Your task to perform on an android device: Open privacy settings Image 0: 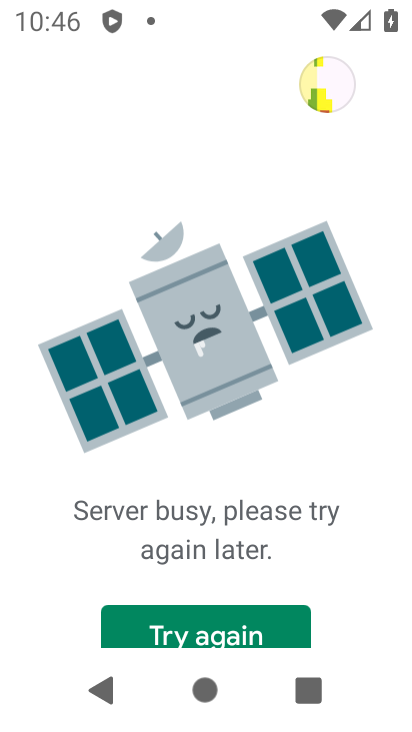
Step 0: press home button
Your task to perform on an android device: Open privacy settings Image 1: 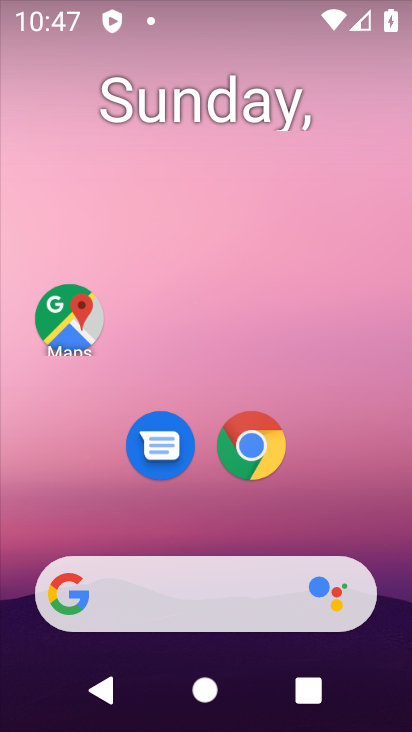
Step 1: click (243, 451)
Your task to perform on an android device: Open privacy settings Image 2: 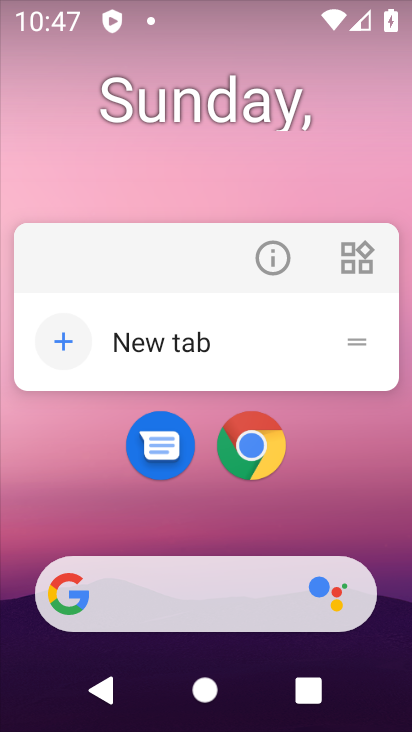
Step 2: click (256, 451)
Your task to perform on an android device: Open privacy settings Image 3: 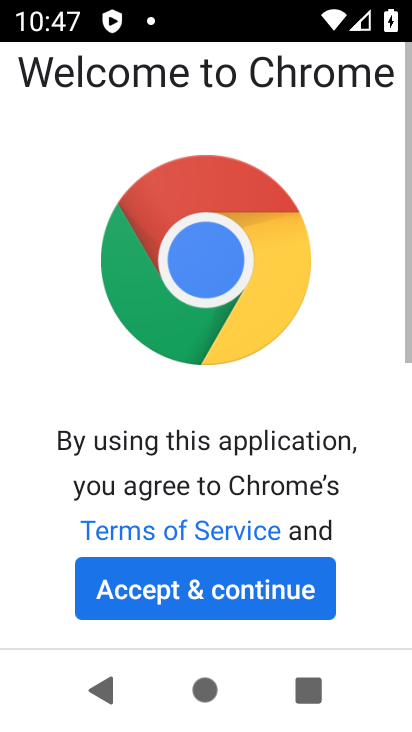
Step 3: click (229, 585)
Your task to perform on an android device: Open privacy settings Image 4: 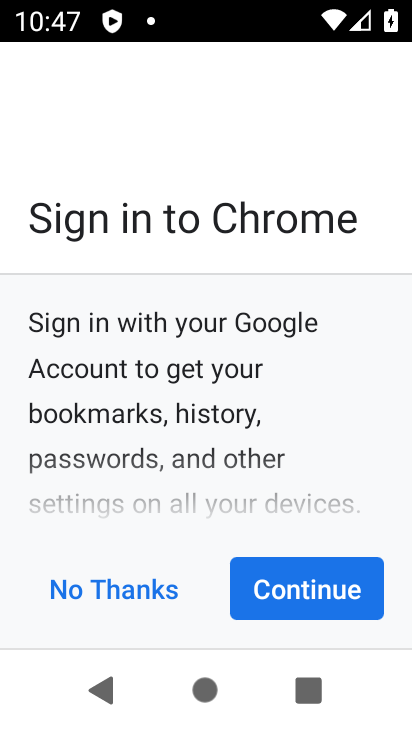
Step 4: click (366, 597)
Your task to perform on an android device: Open privacy settings Image 5: 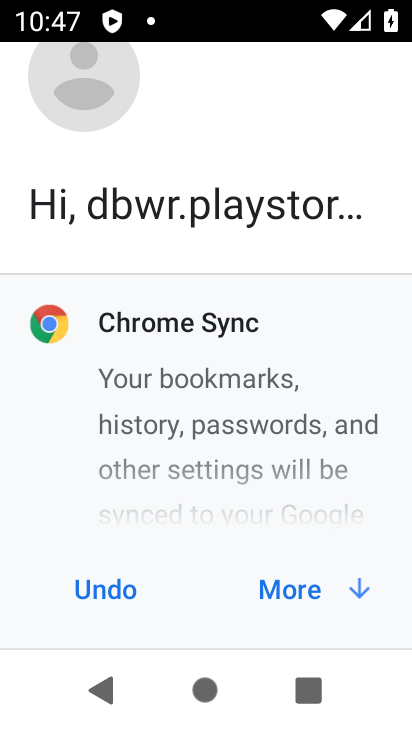
Step 5: click (340, 603)
Your task to perform on an android device: Open privacy settings Image 6: 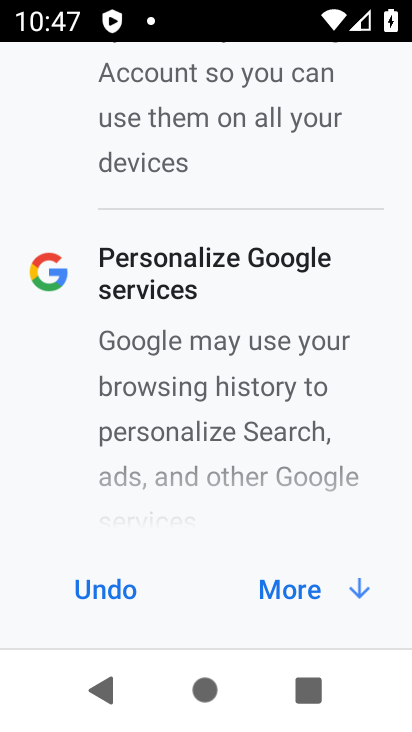
Step 6: click (340, 591)
Your task to perform on an android device: Open privacy settings Image 7: 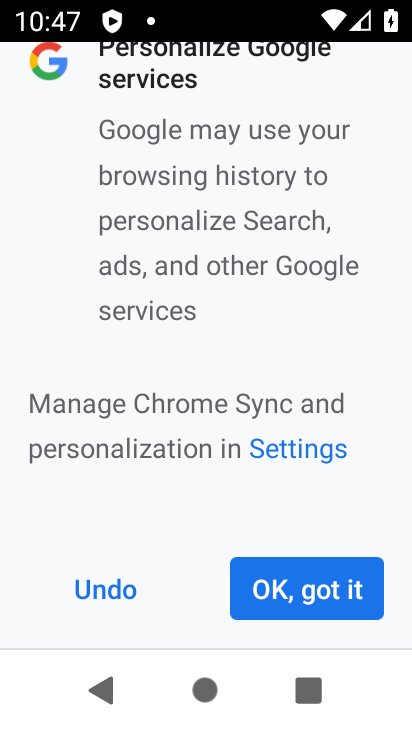
Step 7: click (340, 591)
Your task to perform on an android device: Open privacy settings Image 8: 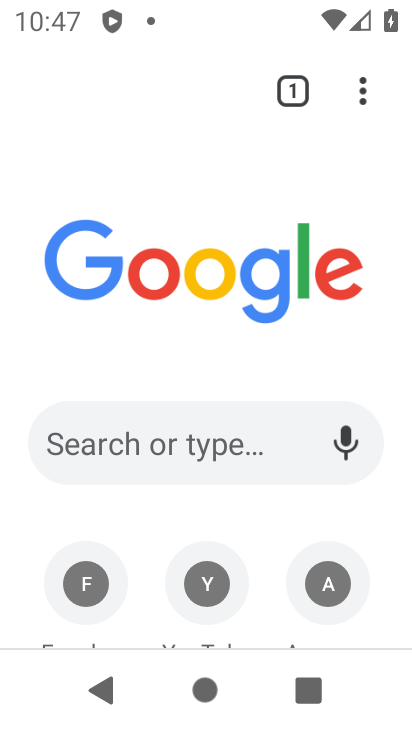
Step 8: drag from (366, 63) to (230, 484)
Your task to perform on an android device: Open privacy settings Image 9: 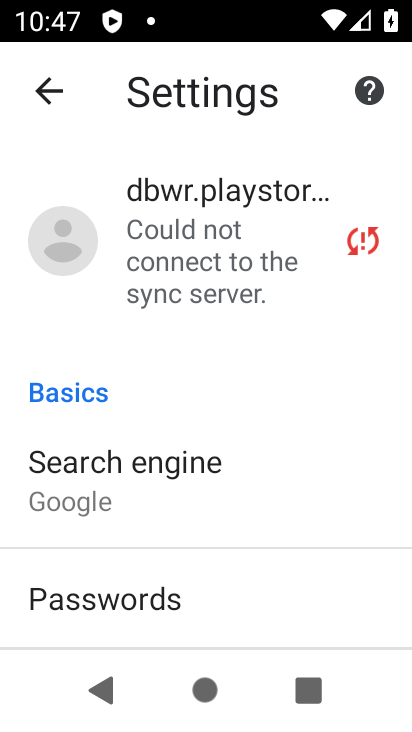
Step 9: drag from (273, 544) to (409, 83)
Your task to perform on an android device: Open privacy settings Image 10: 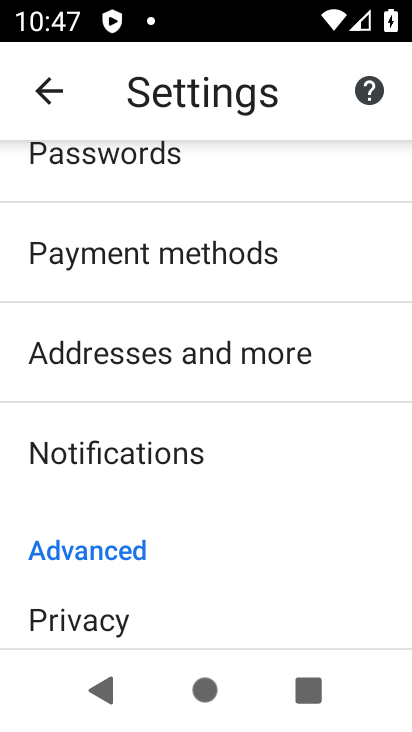
Step 10: click (147, 623)
Your task to perform on an android device: Open privacy settings Image 11: 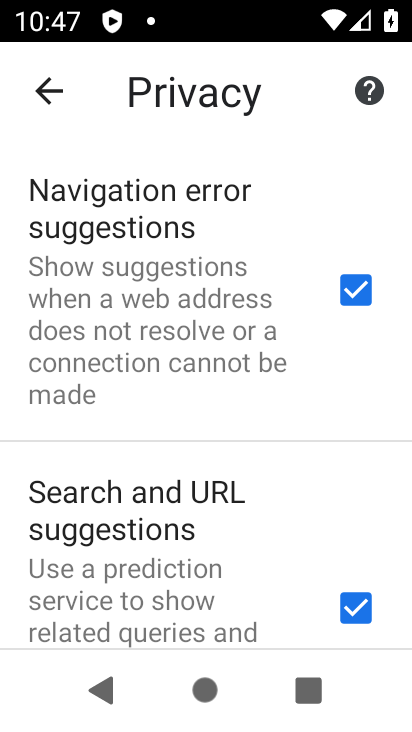
Step 11: task complete